Your task to perform on an android device: open app "Pinterest" Image 0: 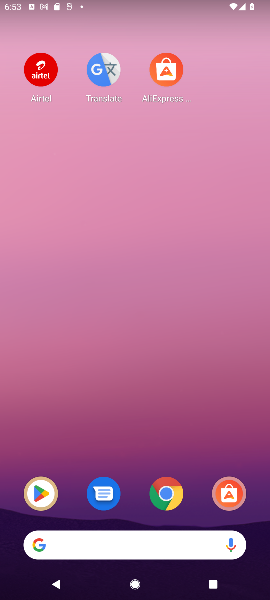
Step 0: drag from (152, 591) to (157, 66)
Your task to perform on an android device: open app "Pinterest" Image 1: 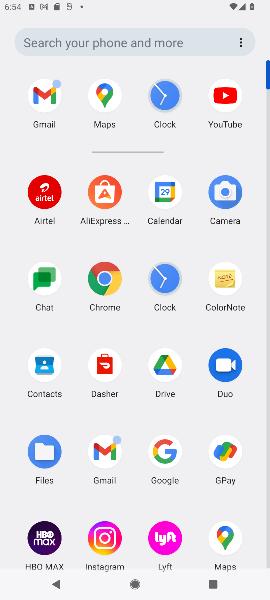
Step 1: drag from (188, 514) to (183, 194)
Your task to perform on an android device: open app "Pinterest" Image 2: 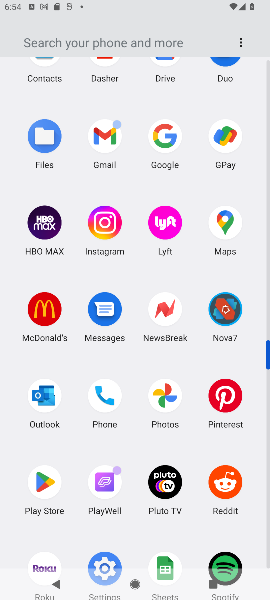
Step 2: click (44, 479)
Your task to perform on an android device: open app "Pinterest" Image 3: 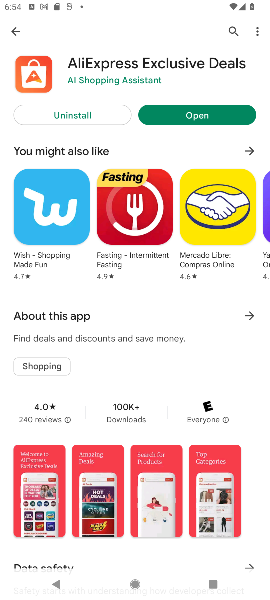
Step 3: click (230, 29)
Your task to perform on an android device: open app "Pinterest" Image 4: 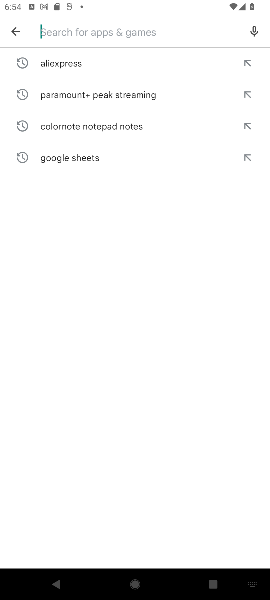
Step 4: type "Pinterest"
Your task to perform on an android device: open app "Pinterest" Image 5: 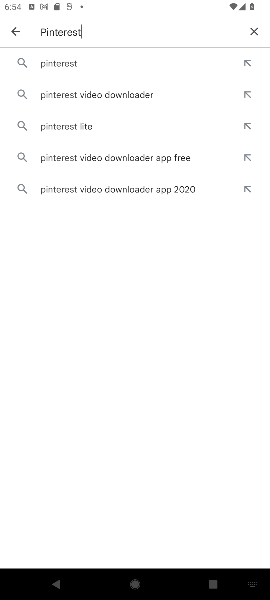
Step 5: click (62, 63)
Your task to perform on an android device: open app "Pinterest" Image 6: 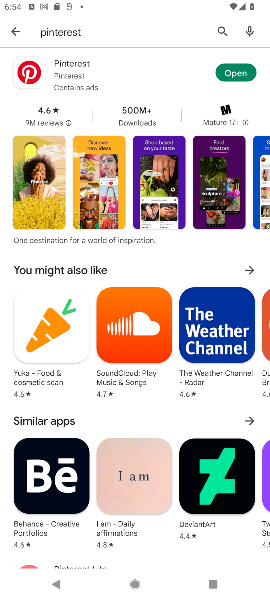
Step 6: click (241, 72)
Your task to perform on an android device: open app "Pinterest" Image 7: 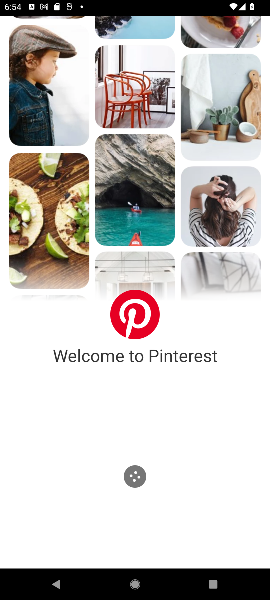
Step 7: task complete